Your task to perform on an android device: add a label to a message in the gmail app Image 0: 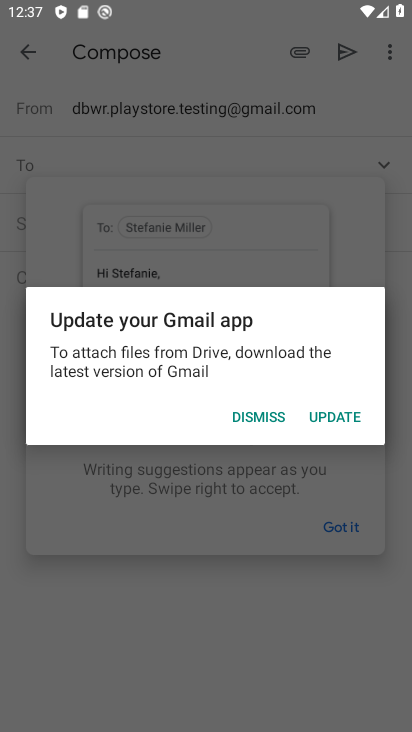
Step 0: press home button
Your task to perform on an android device: add a label to a message in the gmail app Image 1: 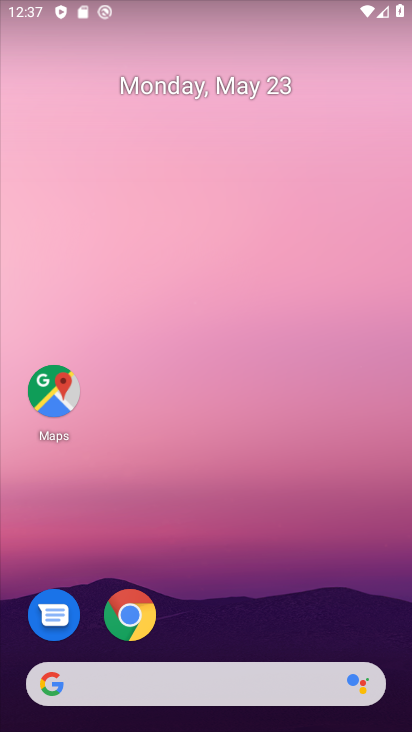
Step 1: drag from (242, 728) to (208, 198)
Your task to perform on an android device: add a label to a message in the gmail app Image 2: 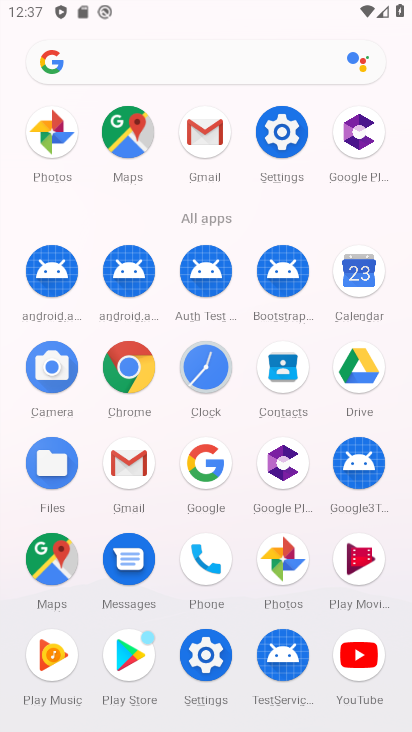
Step 2: click (128, 465)
Your task to perform on an android device: add a label to a message in the gmail app Image 3: 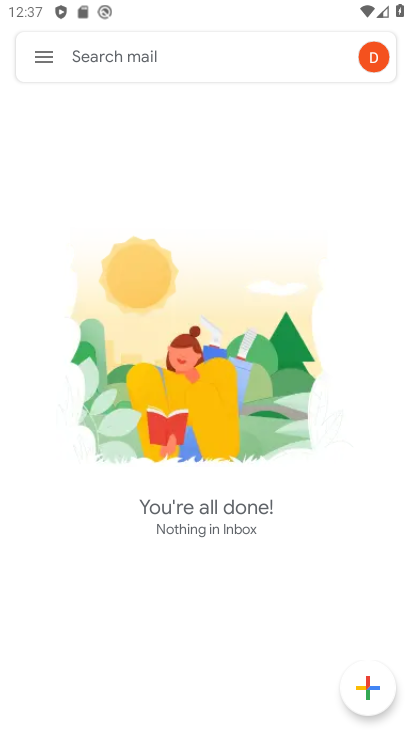
Step 3: task complete